Your task to perform on an android device: turn off sleep mode Image 0: 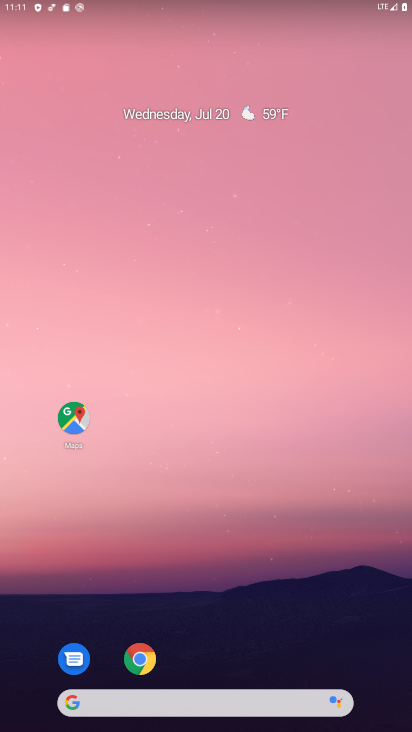
Step 0: drag from (215, 697) to (212, 131)
Your task to perform on an android device: turn off sleep mode Image 1: 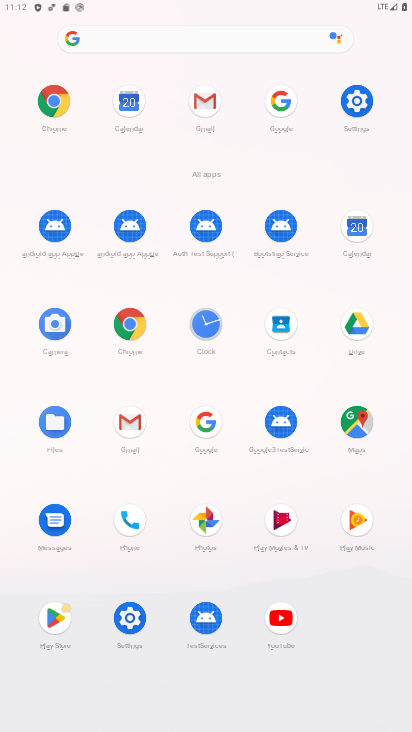
Step 1: click (352, 98)
Your task to perform on an android device: turn off sleep mode Image 2: 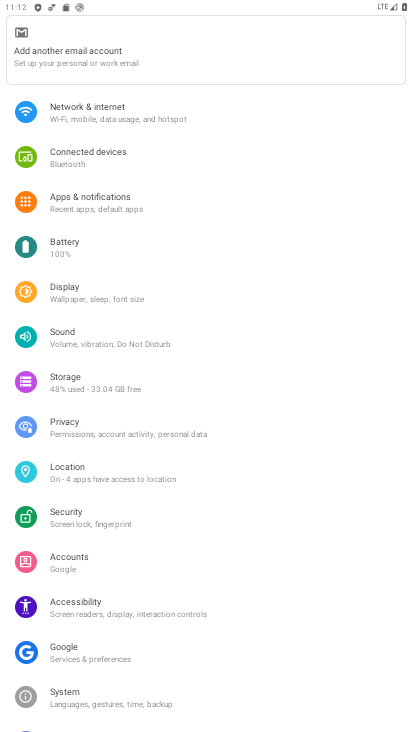
Step 2: click (67, 292)
Your task to perform on an android device: turn off sleep mode Image 3: 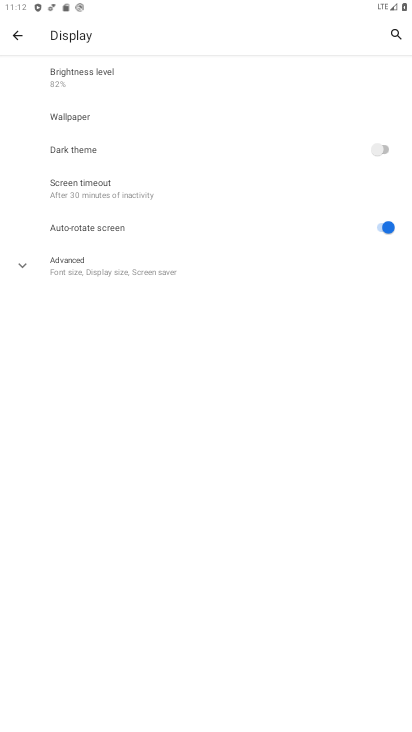
Step 3: task complete